Your task to perform on an android device: Open maps Image 0: 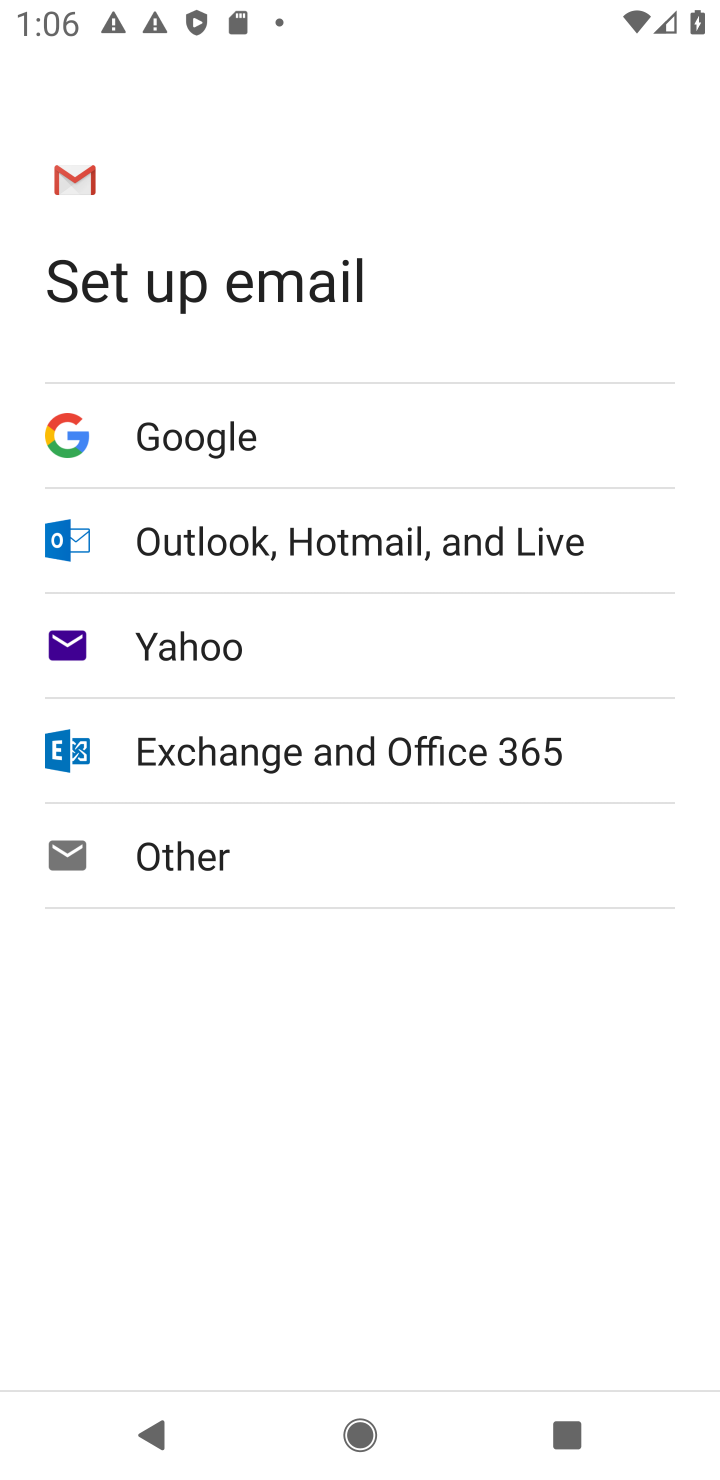
Step 0: press home button
Your task to perform on an android device: Open maps Image 1: 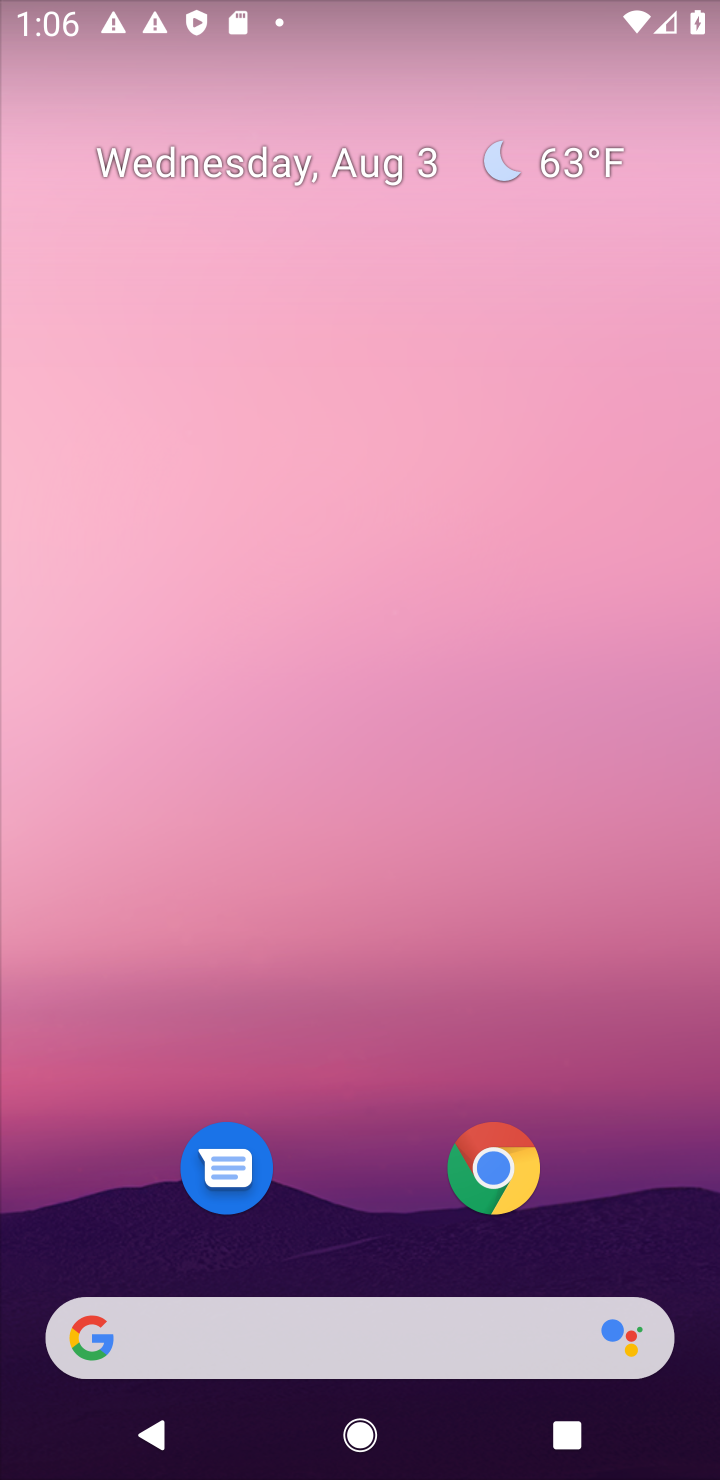
Step 1: drag from (623, 755) to (583, 40)
Your task to perform on an android device: Open maps Image 2: 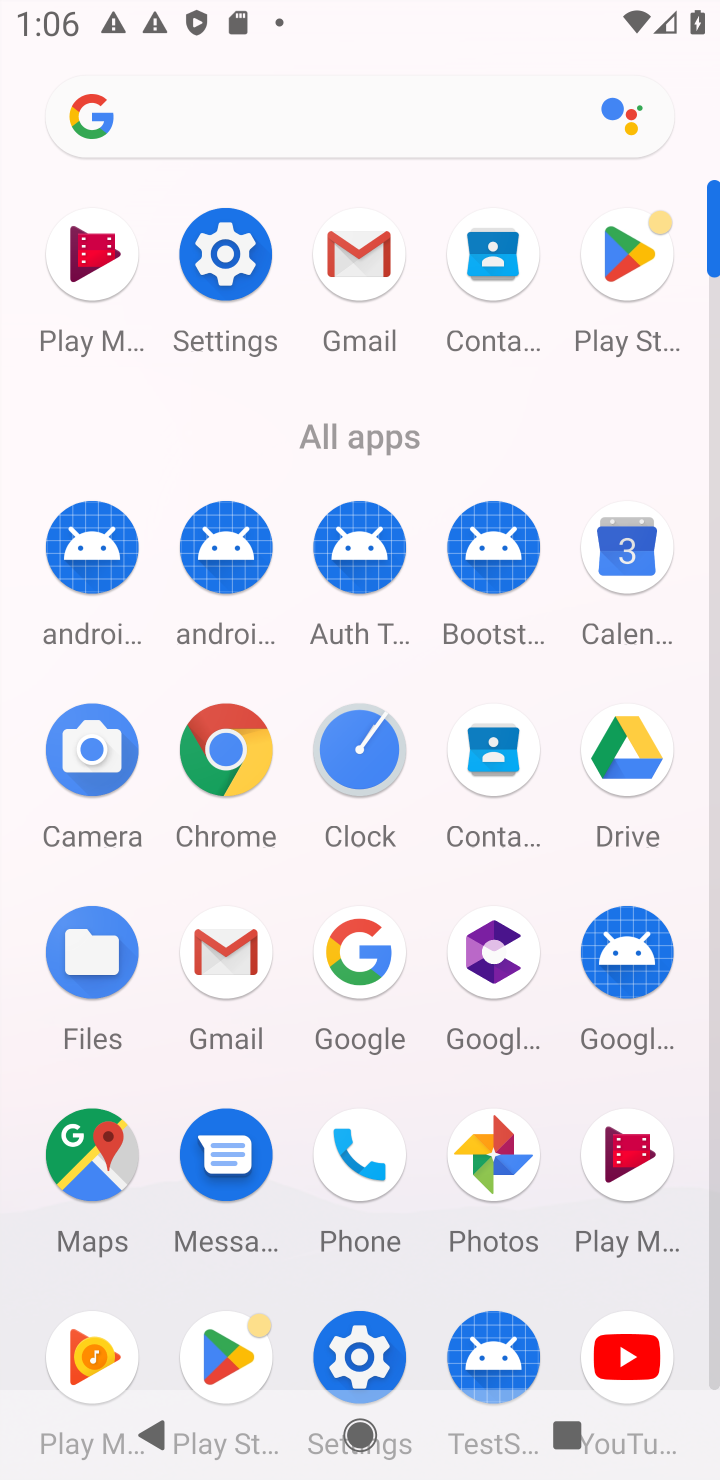
Step 2: click (83, 1162)
Your task to perform on an android device: Open maps Image 3: 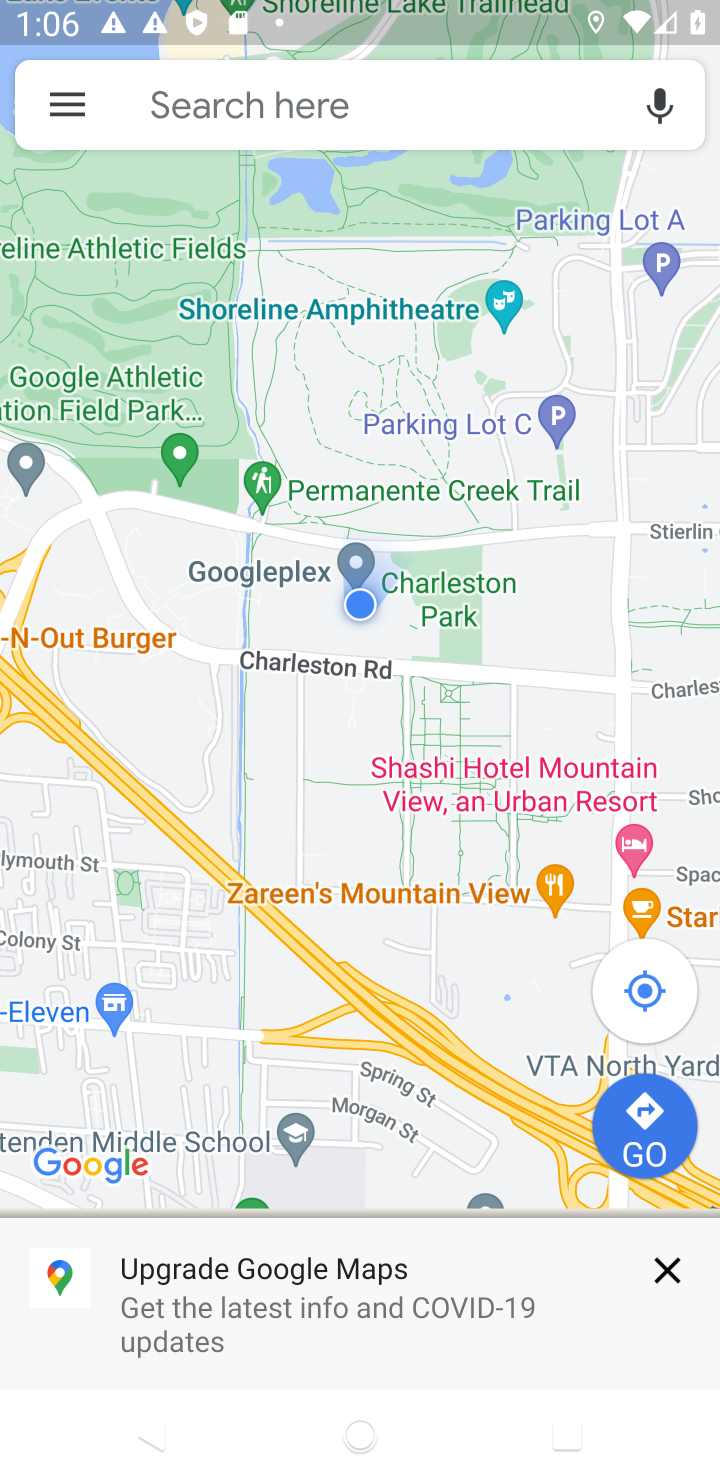
Step 3: task complete